Your task to perform on an android device: Search for "alienware area 51" on walmart, select the first entry, and add it to the cart. Image 0: 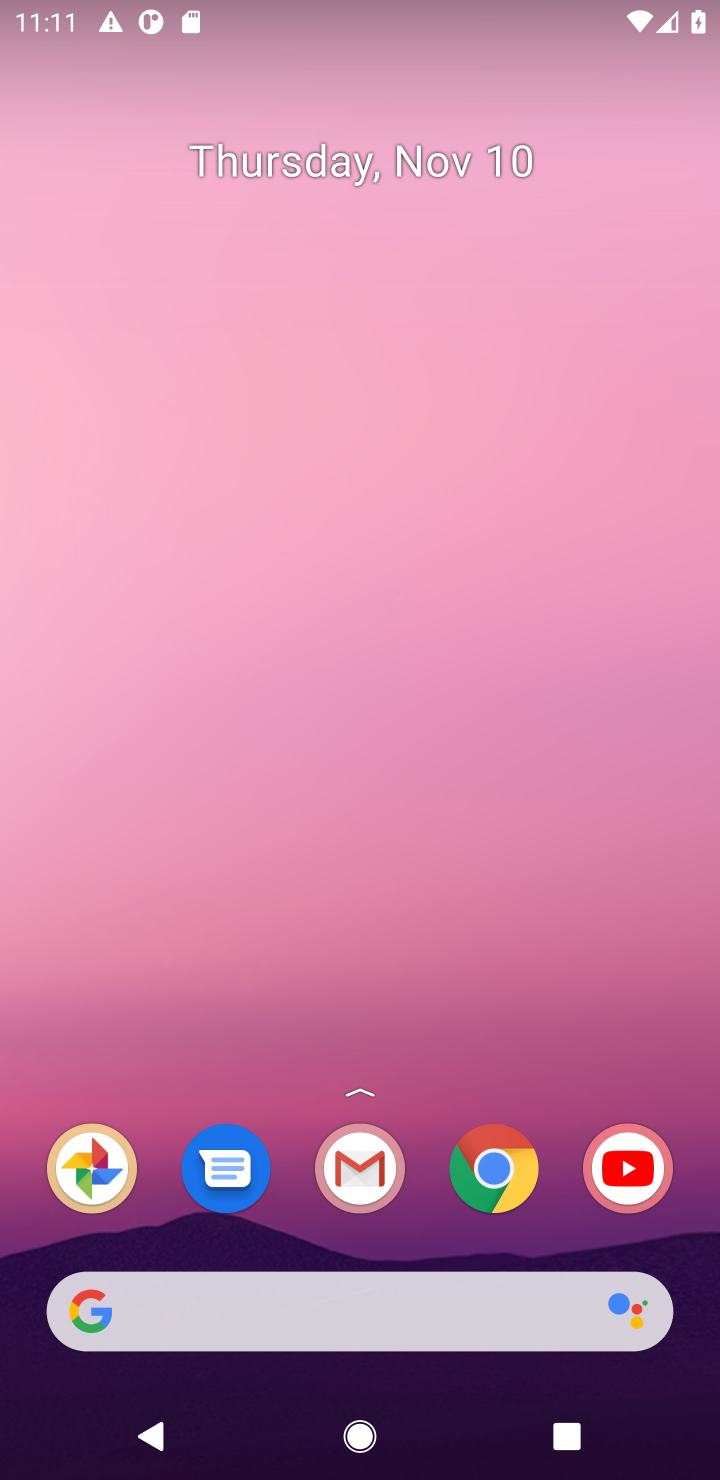
Step 0: click (500, 1173)
Your task to perform on an android device: Search for "alienware area 51" on walmart, select the first entry, and add it to the cart. Image 1: 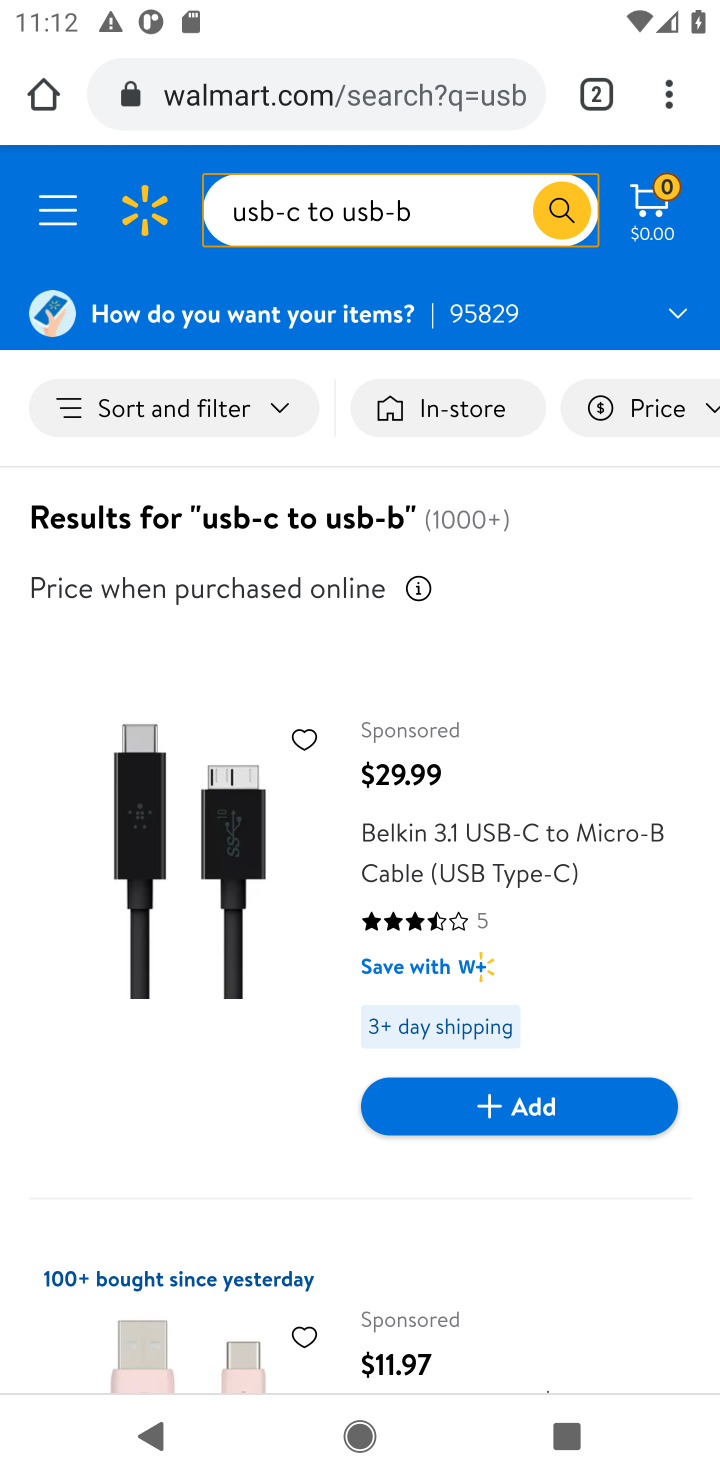
Step 1: click (480, 204)
Your task to perform on an android device: Search for "alienware area 51" on walmart, select the first entry, and add it to the cart. Image 2: 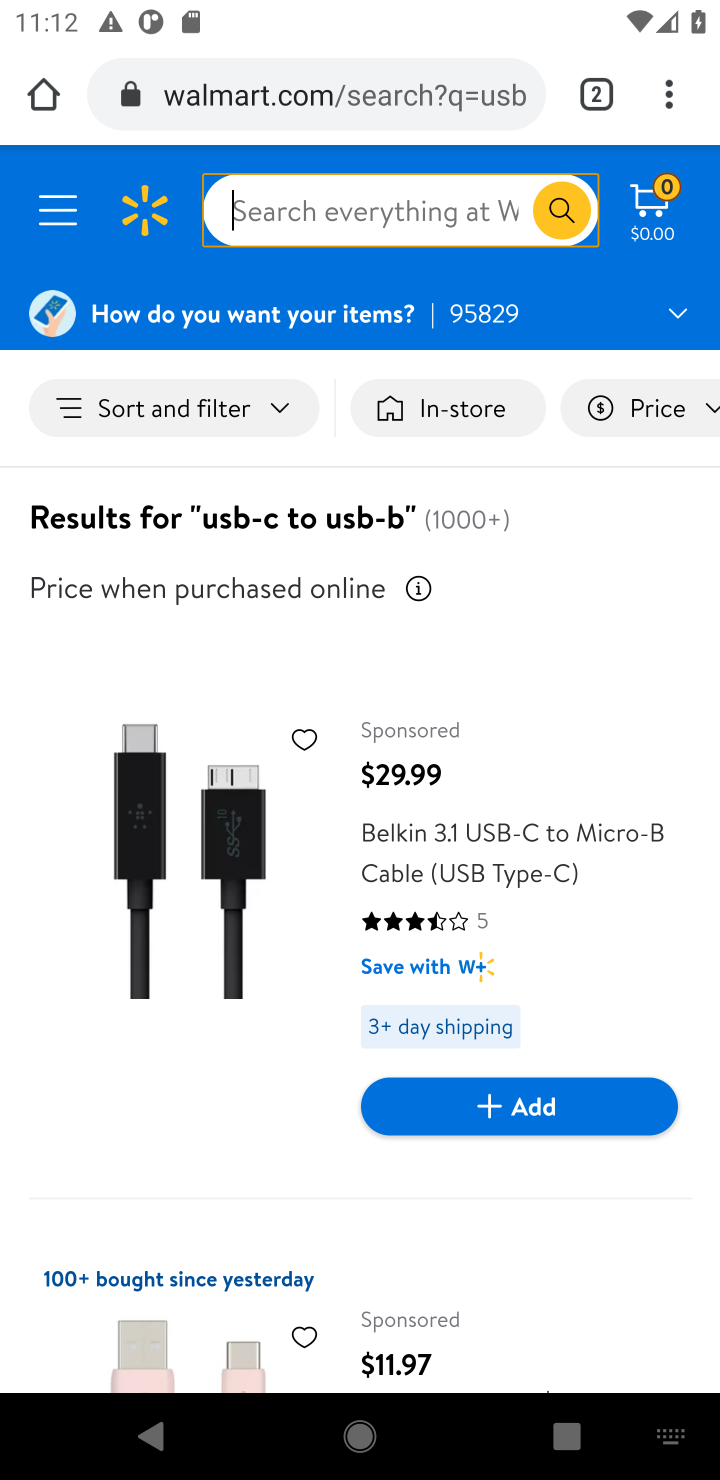
Step 2: type "alienware area 51"
Your task to perform on an android device: Search for "alienware area 51" on walmart, select the first entry, and add it to the cart. Image 3: 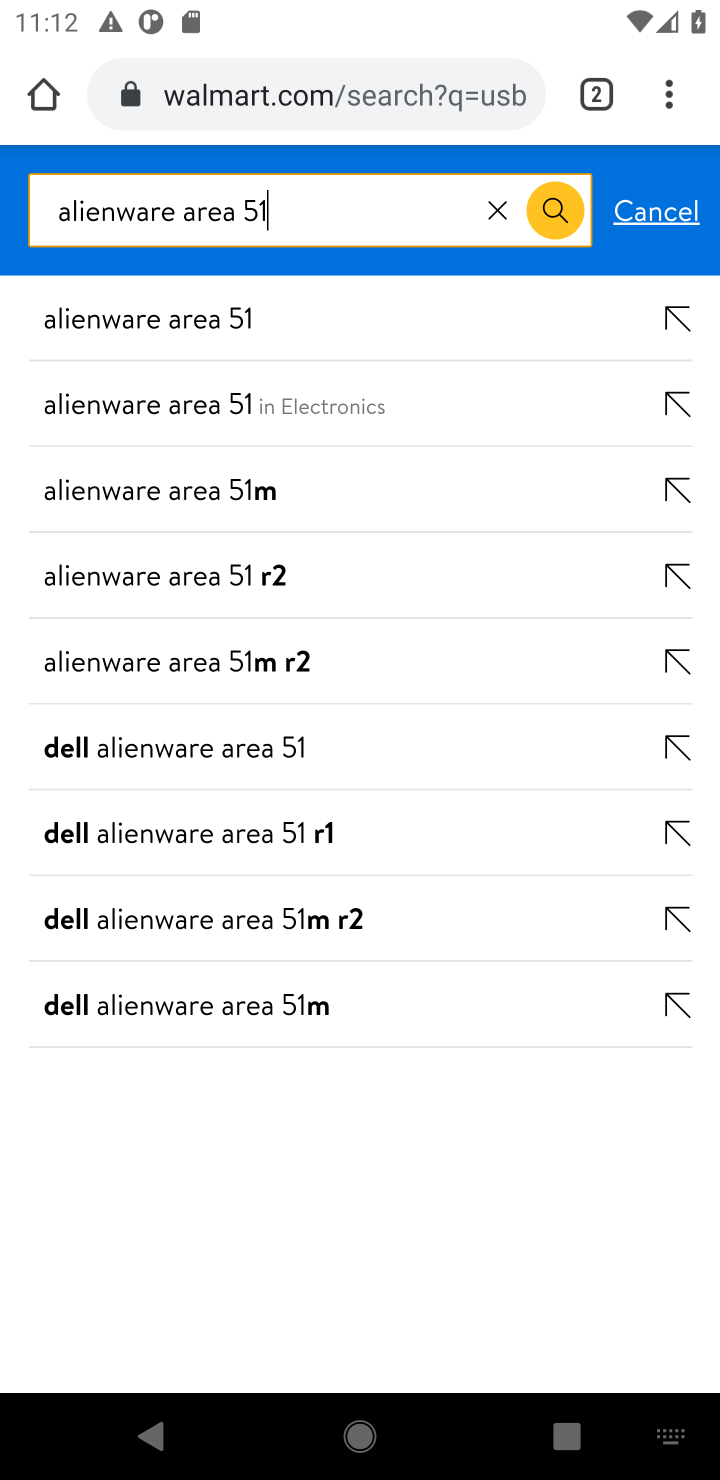
Step 3: click (181, 317)
Your task to perform on an android device: Search for "alienware area 51" on walmart, select the first entry, and add it to the cart. Image 4: 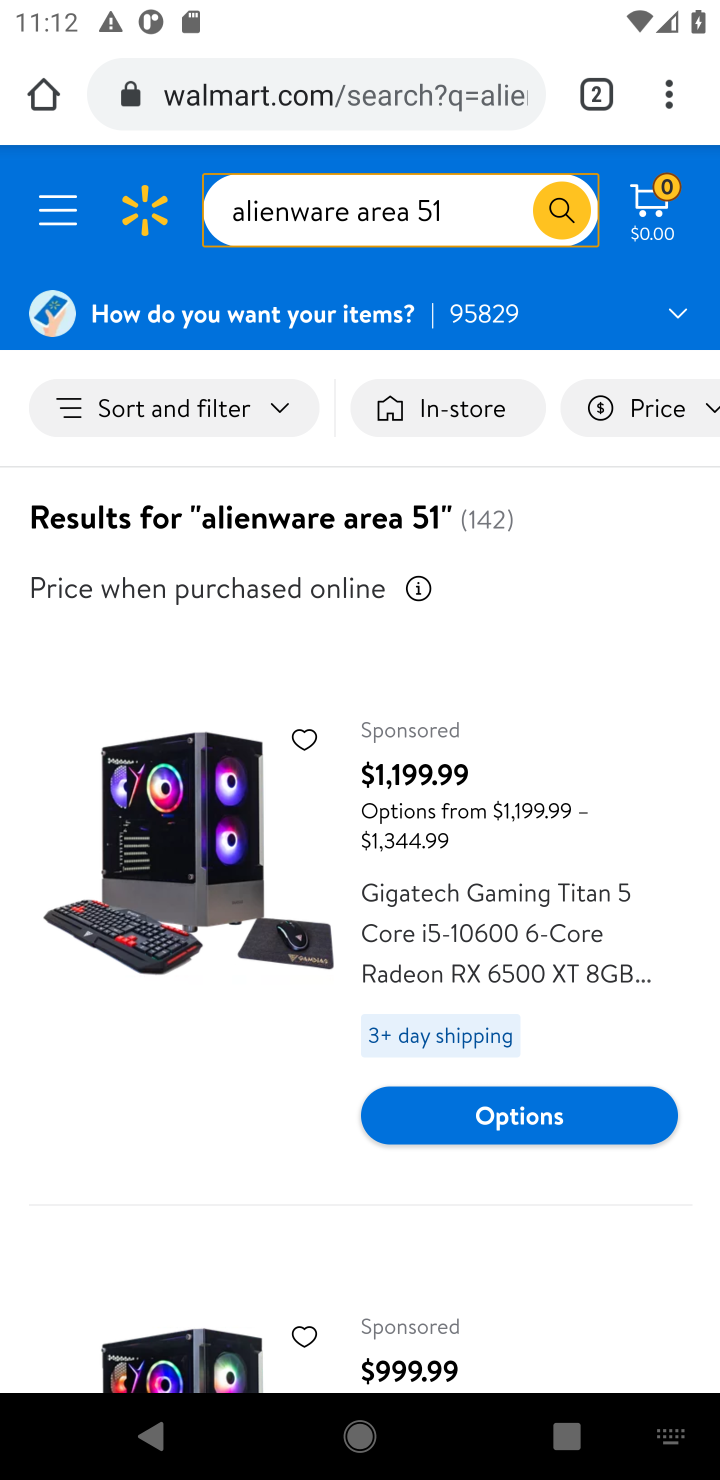
Step 4: task complete